Your task to perform on an android device: empty trash in google photos Image 0: 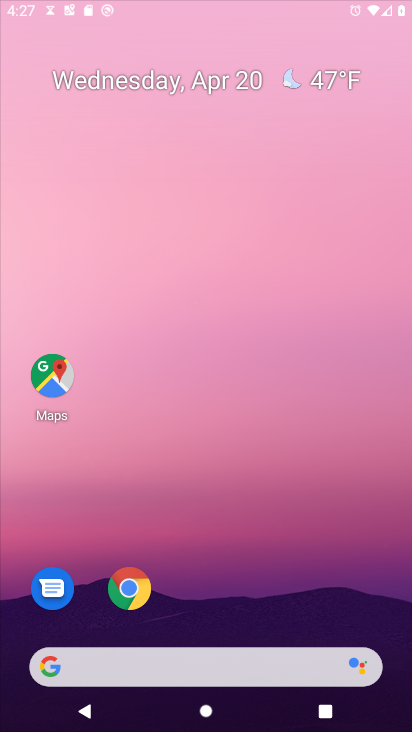
Step 0: drag from (329, 528) to (346, 44)
Your task to perform on an android device: empty trash in google photos Image 1: 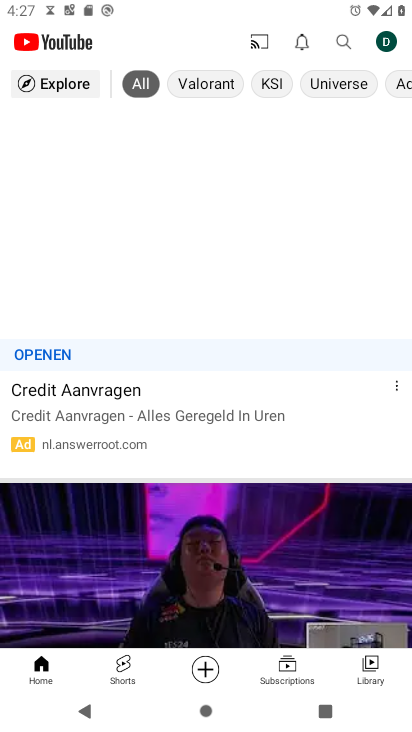
Step 1: press home button
Your task to perform on an android device: empty trash in google photos Image 2: 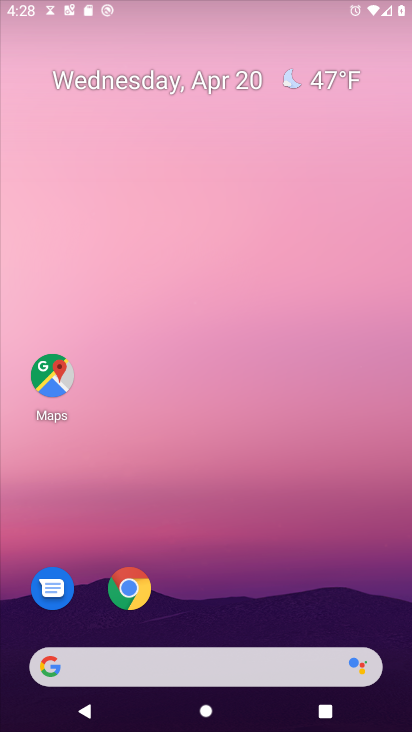
Step 2: drag from (275, 615) to (365, 54)
Your task to perform on an android device: empty trash in google photos Image 3: 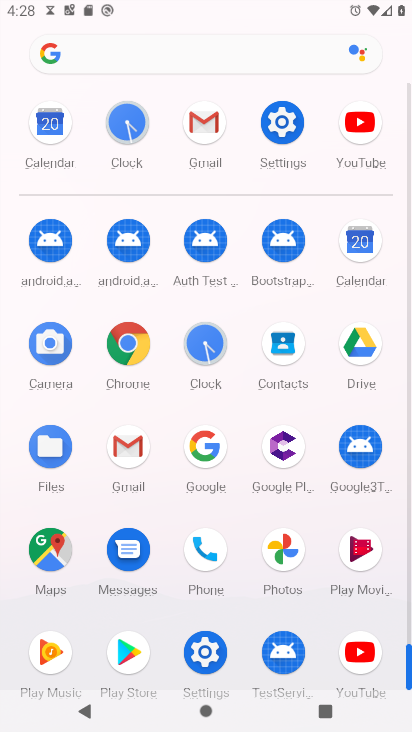
Step 3: click (287, 544)
Your task to perform on an android device: empty trash in google photos Image 4: 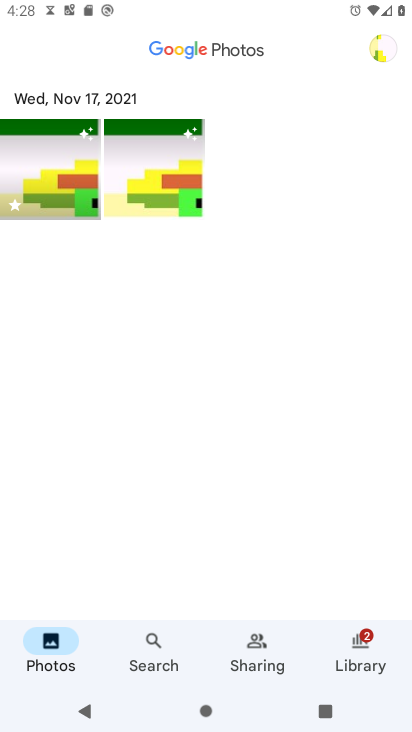
Step 4: click (358, 649)
Your task to perform on an android device: empty trash in google photos Image 5: 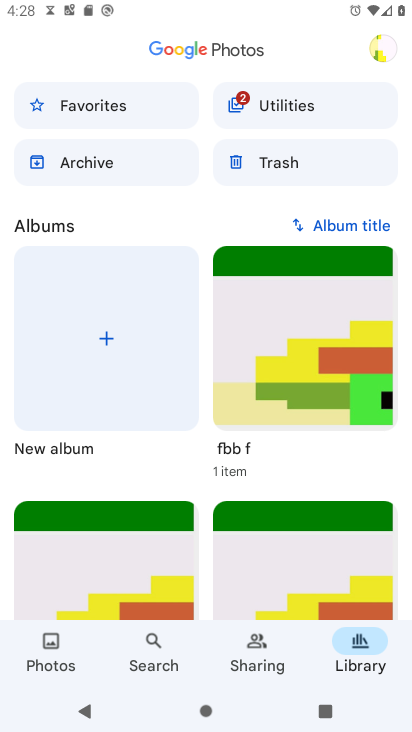
Step 5: click (346, 157)
Your task to perform on an android device: empty trash in google photos Image 6: 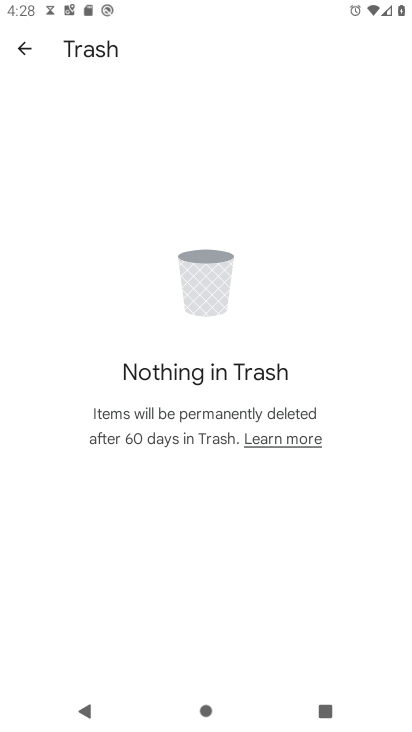
Step 6: task complete